Your task to perform on an android device: open device folders in google photos Image 0: 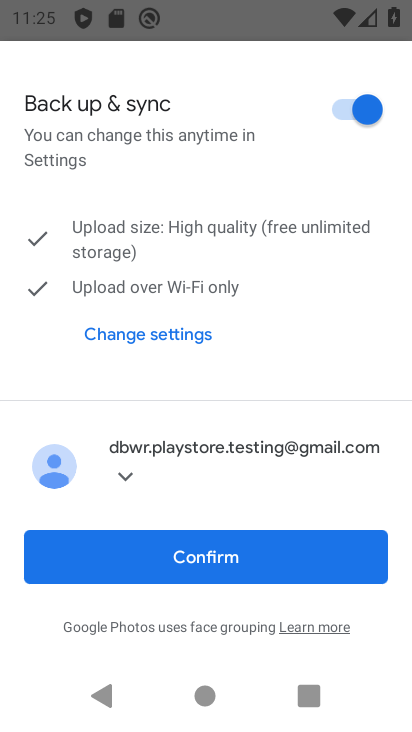
Step 0: click (201, 559)
Your task to perform on an android device: open device folders in google photos Image 1: 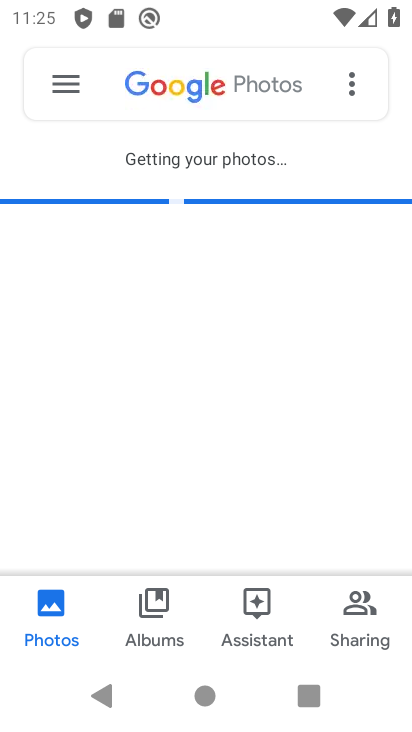
Step 1: click (42, 81)
Your task to perform on an android device: open device folders in google photos Image 2: 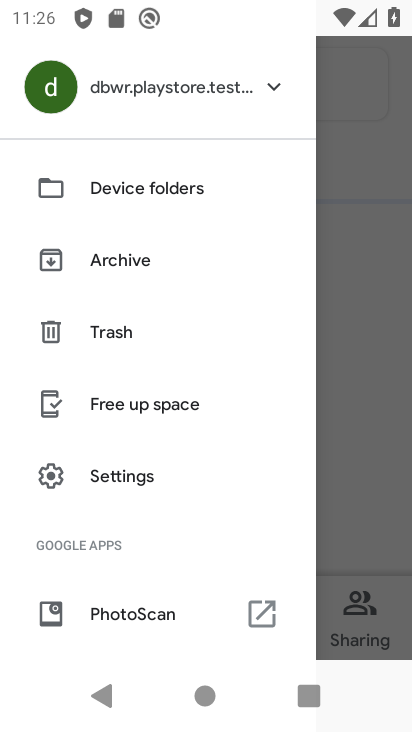
Step 2: click (115, 186)
Your task to perform on an android device: open device folders in google photos Image 3: 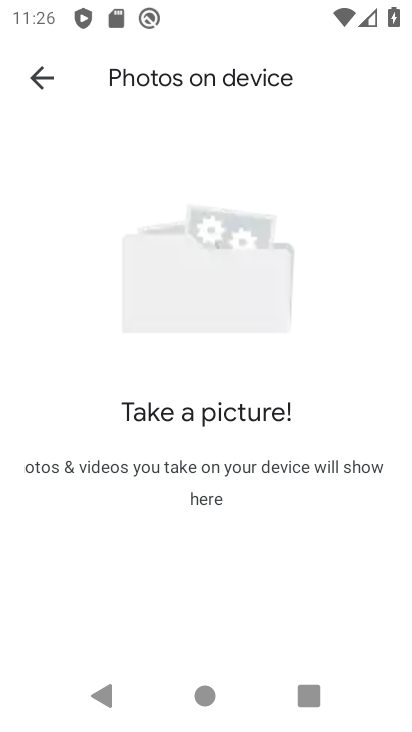
Step 3: task complete